Your task to perform on an android device: manage bookmarks in the chrome app Image 0: 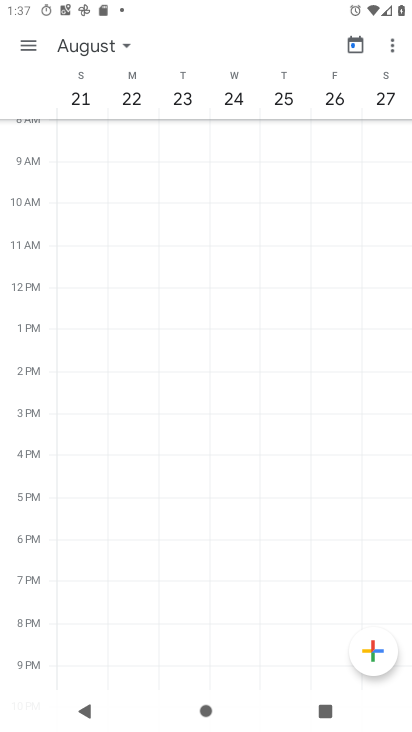
Step 0: press home button
Your task to perform on an android device: manage bookmarks in the chrome app Image 1: 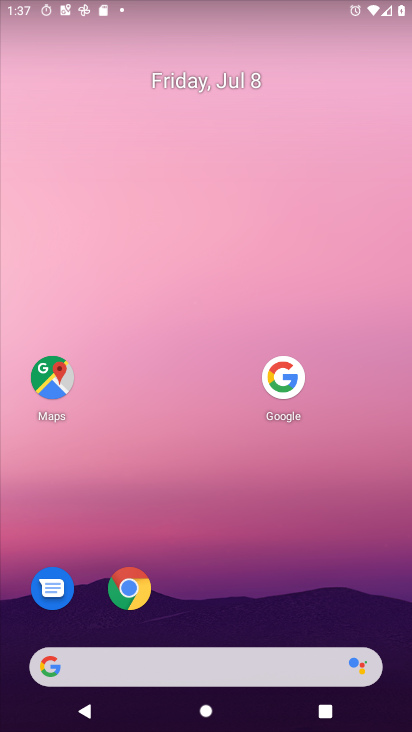
Step 1: click (121, 585)
Your task to perform on an android device: manage bookmarks in the chrome app Image 2: 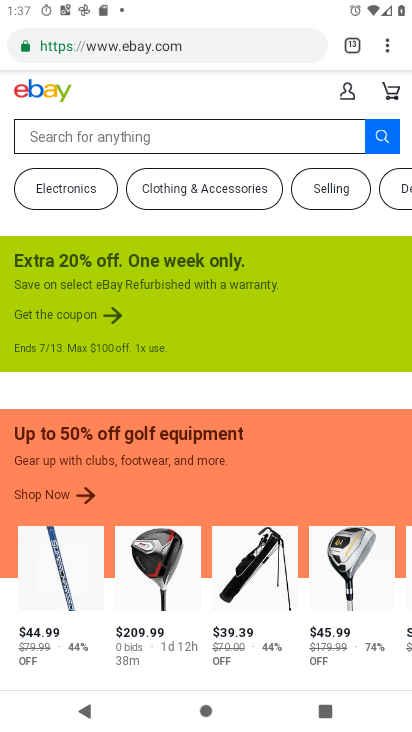
Step 2: task complete